Your task to perform on an android device: open app "Google Duo" Image 0: 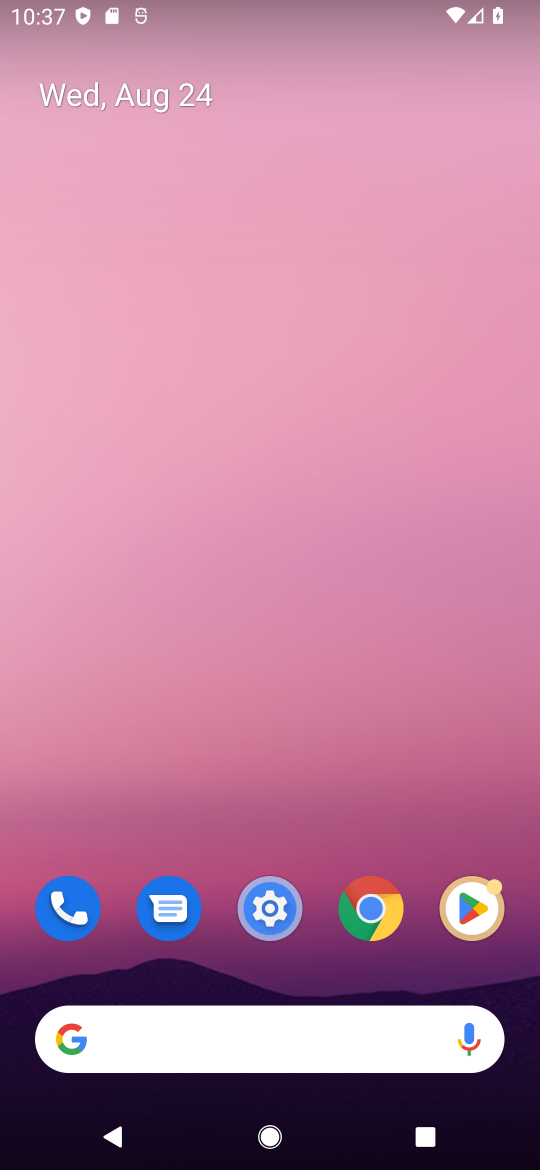
Step 0: drag from (252, 1006) to (442, 267)
Your task to perform on an android device: open app "Google Duo" Image 1: 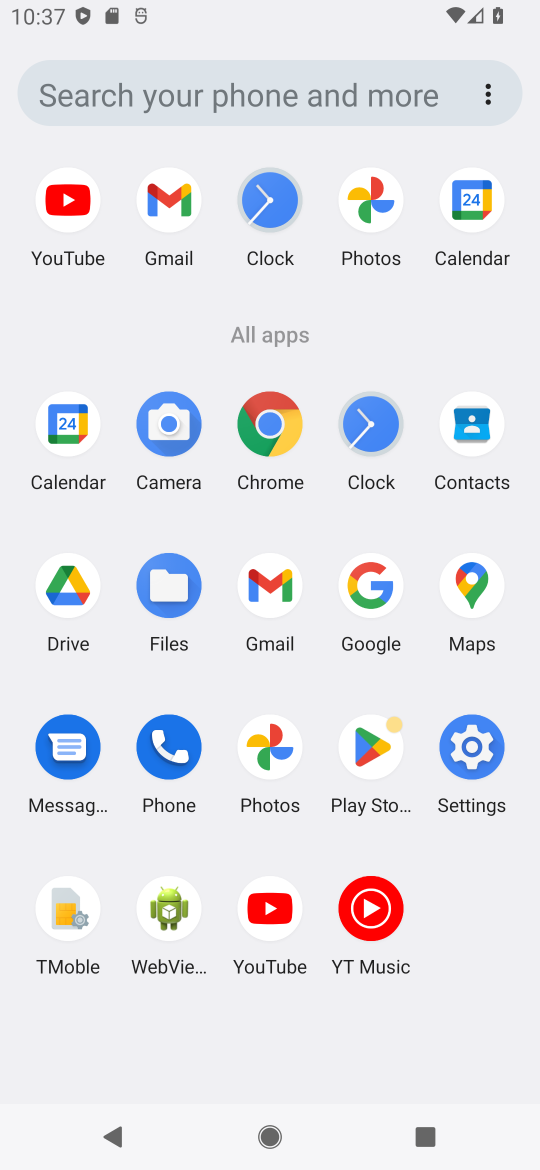
Step 1: click (372, 738)
Your task to perform on an android device: open app "Google Duo" Image 2: 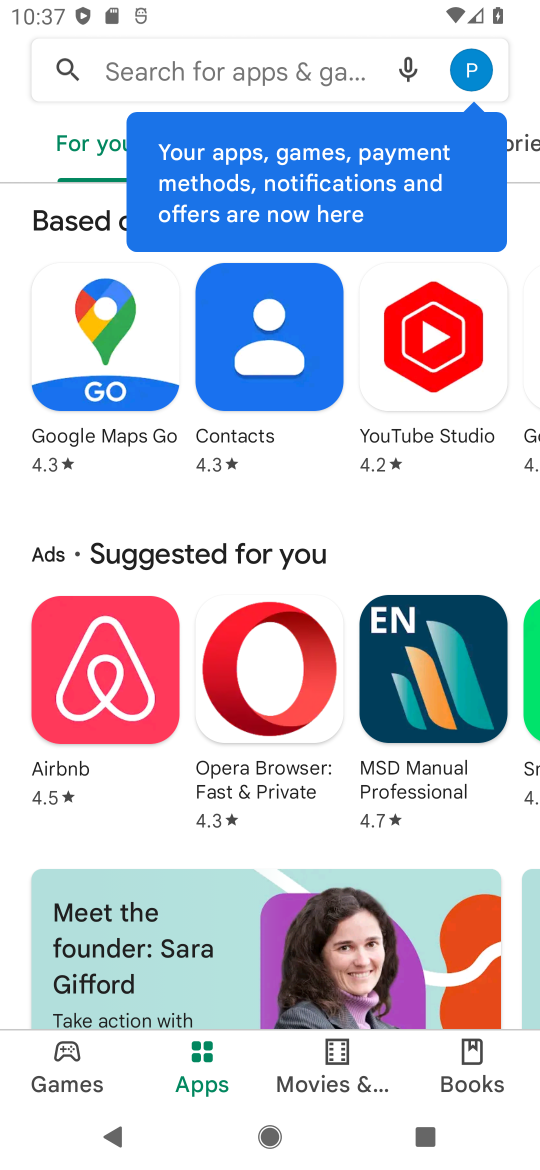
Step 2: click (270, 65)
Your task to perform on an android device: open app "Google Duo" Image 3: 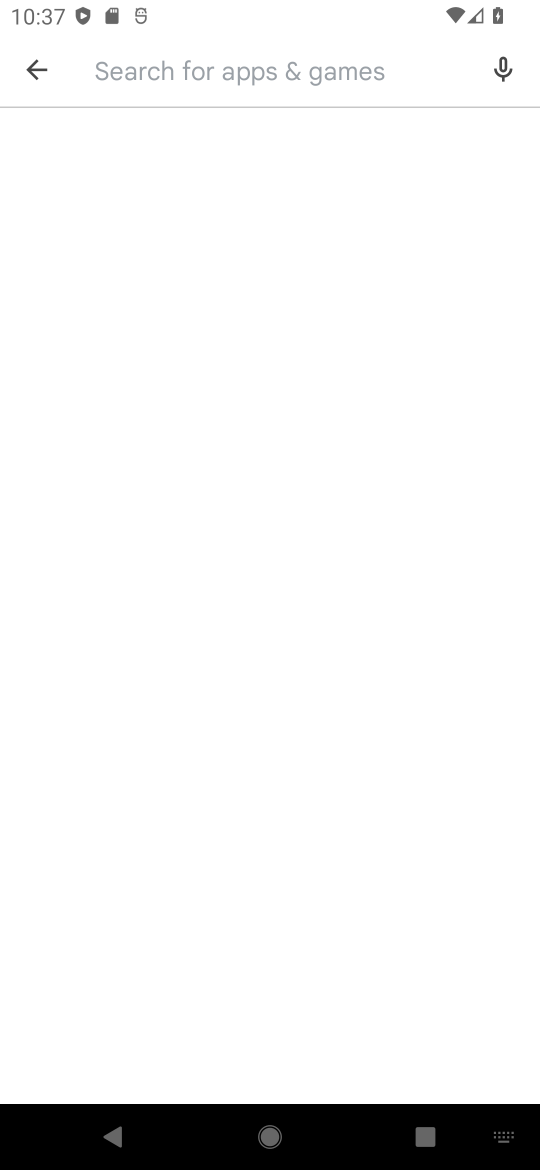
Step 3: type "Google Duo"
Your task to perform on an android device: open app "Google Duo" Image 4: 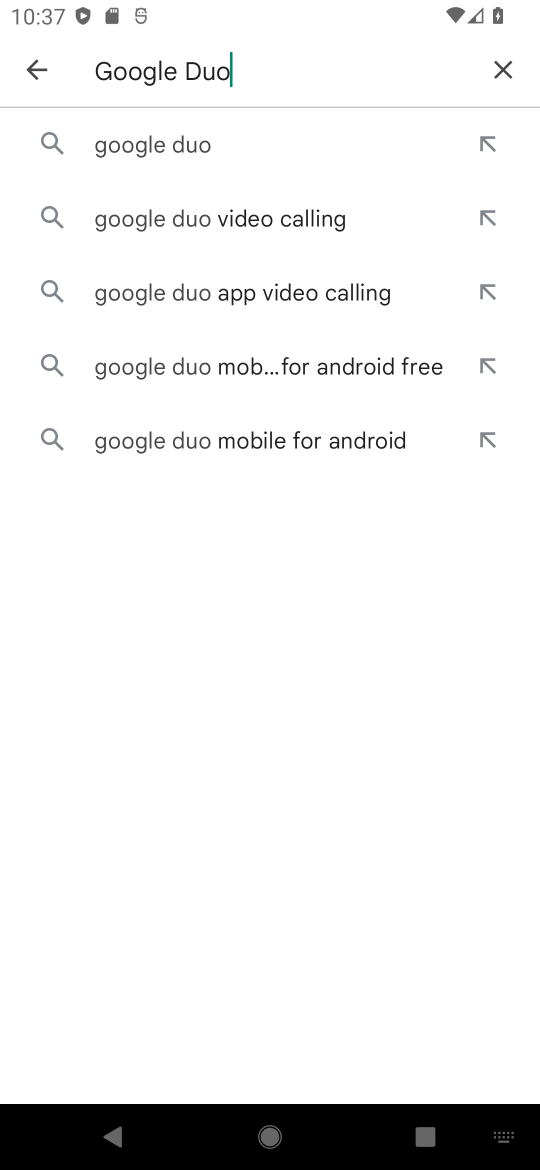
Step 4: click (200, 143)
Your task to perform on an android device: open app "Google Duo" Image 5: 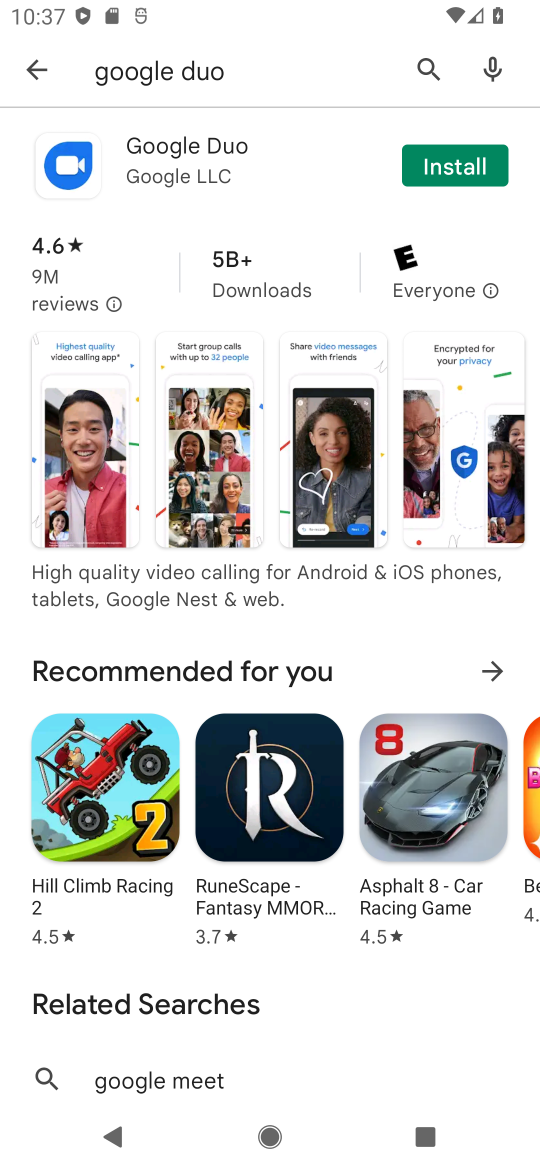
Step 5: click (453, 171)
Your task to perform on an android device: open app "Google Duo" Image 6: 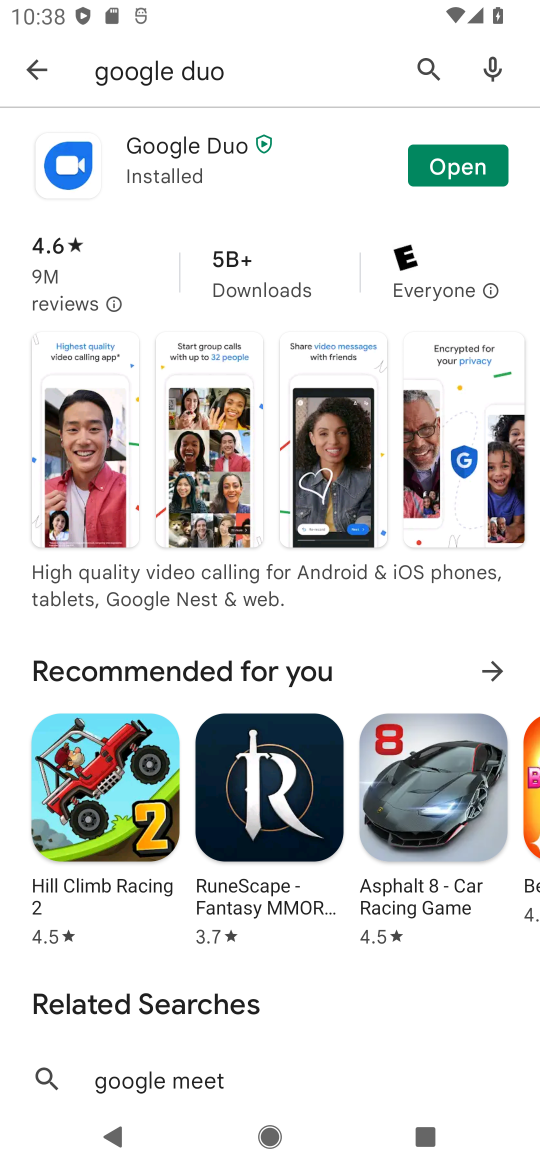
Step 6: click (454, 165)
Your task to perform on an android device: open app "Google Duo" Image 7: 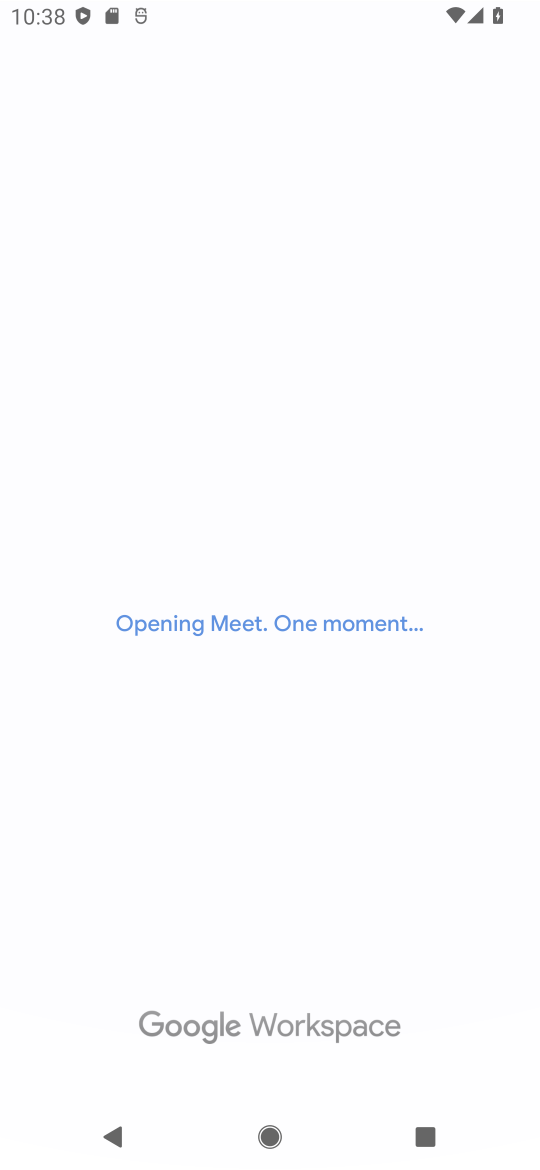
Step 7: task complete